Your task to perform on an android device: Add logitech g933 to the cart on ebay Image 0: 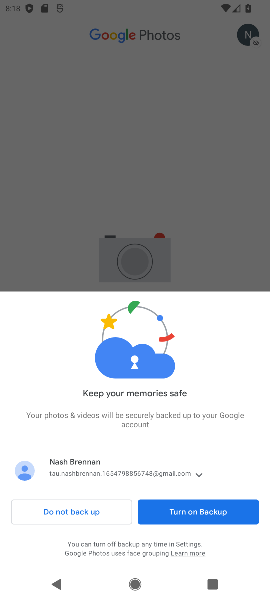
Step 0: press home button
Your task to perform on an android device: Add logitech g933 to the cart on ebay Image 1: 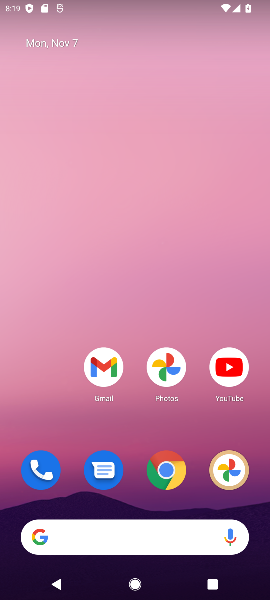
Step 1: click (166, 480)
Your task to perform on an android device: Add logitech g933 to the cart on ebay Image 2: 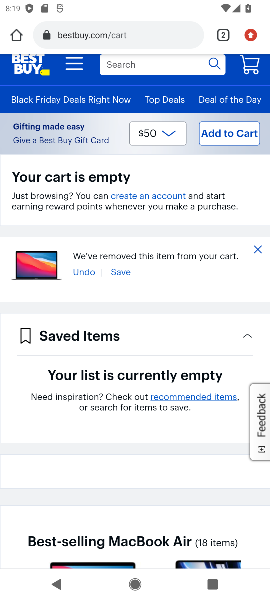
Step 2: click (111, 39)
Your task to perform on an android device: Add logitech g933 to the cart on ebay Image 3: 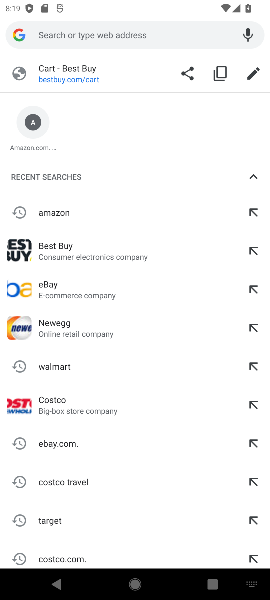
Step 3: click (77, 289)
Your task to perform on an android device: Add logitech g933 to the cart on ebay Image 4: 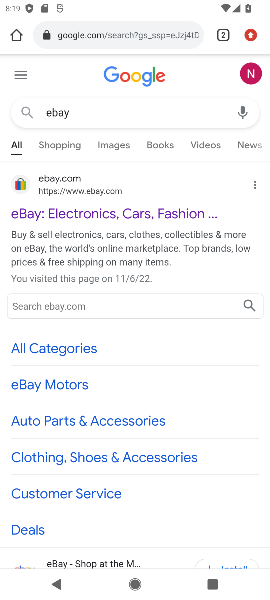
Step 4: click (56, 212)
Your task to perform on an android device: Add logitech g933 to the cart on ebay Image 5: 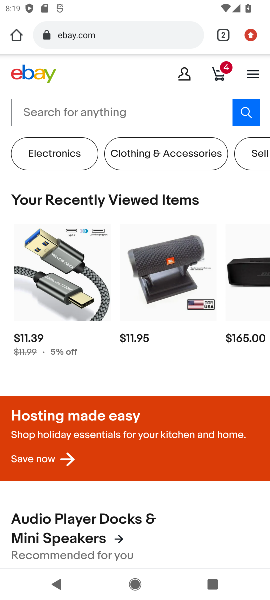
Step 5: click (89, 112)
Your task to perform on an android device: Add logitech g933 to the cart on ebay Image 6: 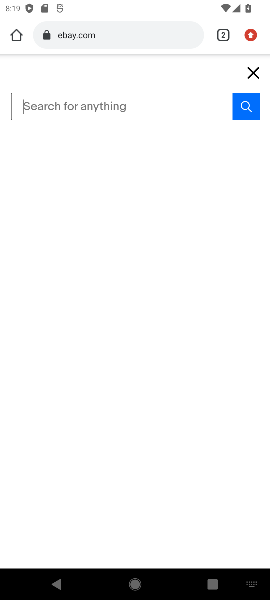
Step 6: type "logitech g933 "
Your task to perform on an android device: Add logitech g933 to the cart on ebay Image 7: 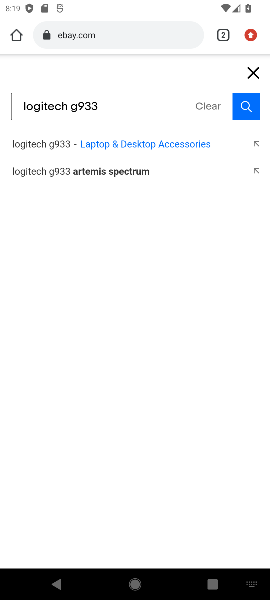
Step 7: click (254, 101)
Your task to perform on an android device: Add logitech g933 to the cart on ebay Image 8: 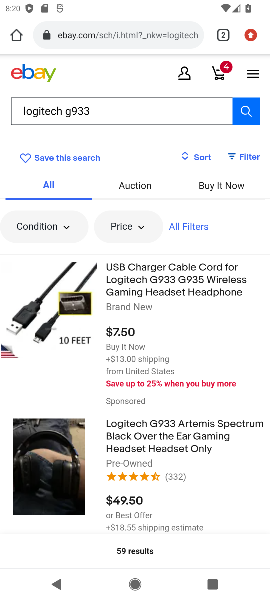
Step 8: click (142, 272)
Your task to perform on an android device: Add logitech g933 to the cart on ebay Image 9: 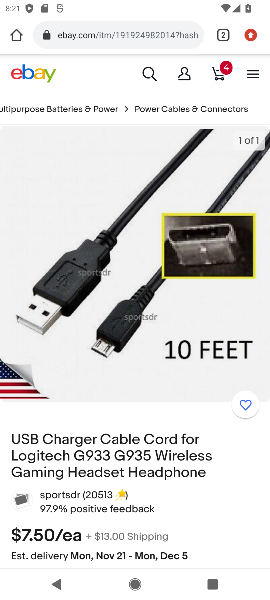
Step 9: drag from (137, 476) to (148, 165)
Your task to perform on an android device: Add logitech g933 to the cart on ebay Image 10: 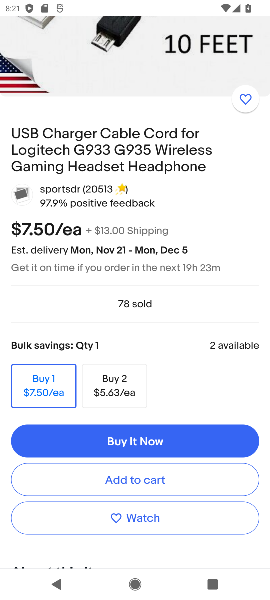
Step 10: click (92, 479)
Your task to perform on an android device: Add logitech g933 to the cart on ebay Image 11: 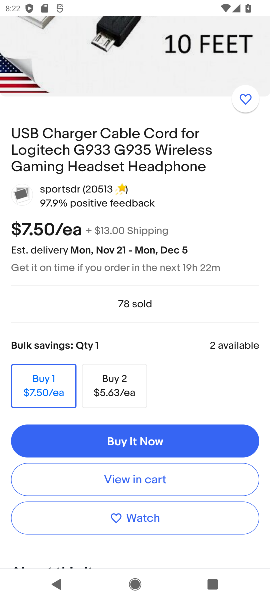
Step 11: task complete